Your task to perform on an android device: all mails in gmail Image 0: 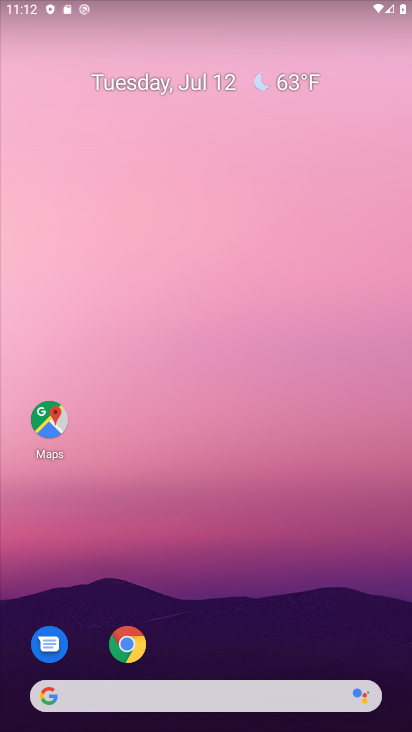
Step 0: drag from (221, 695) to (248, 123)
Your task to perform on an android device: all mails in gmail Image 1: 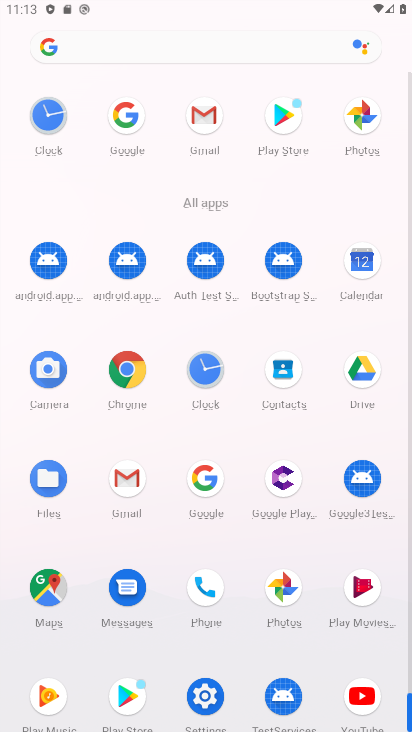
Step 1: click (203, 110)
Your task to perform on an android device: all mails in gmail Image 2: 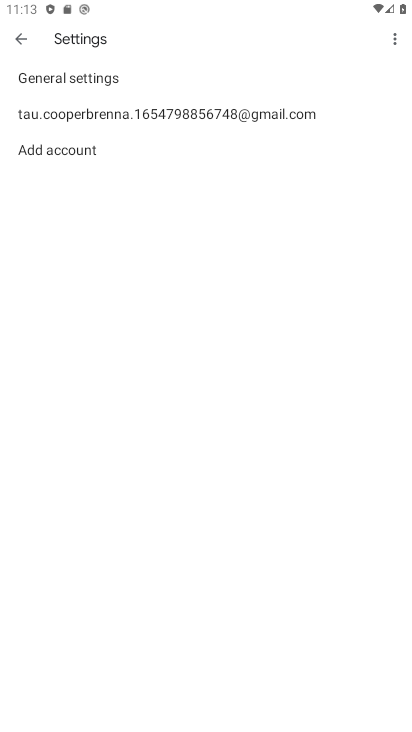
Step 2: press back button
Your task to perform on an android device: all mails in gmail Image 3: 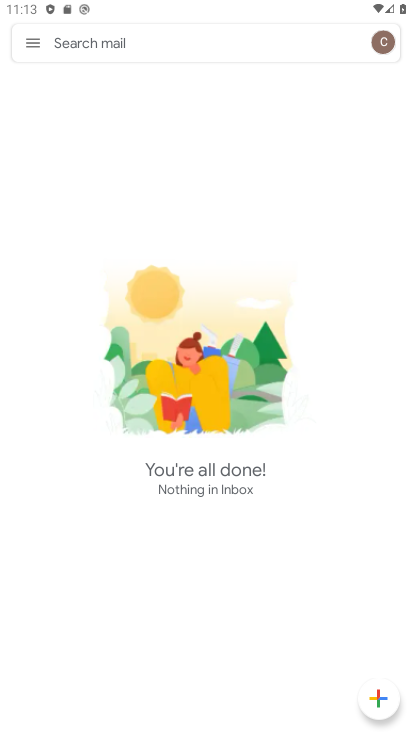
Step 3: click (33, 43)
Your task to perform on an android device: all mails in gmail Image 4: 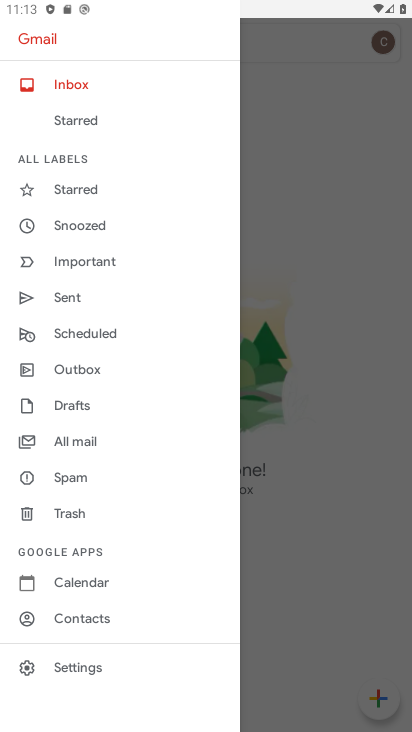
Step 4: click (77, 430)
Your task to perform on an android device: all mails in gmail Image 5: 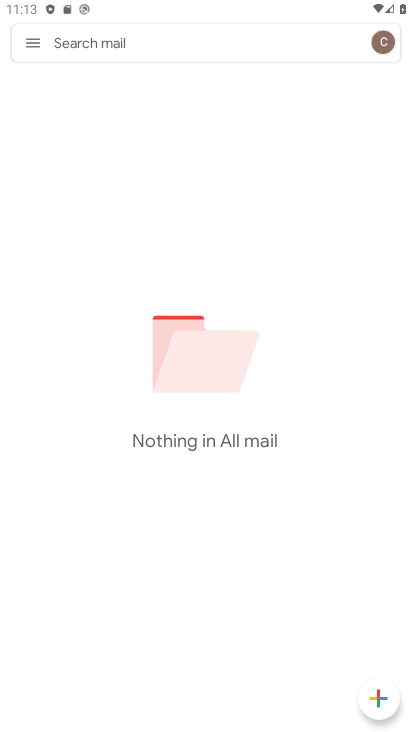
Step 5: click (34, 43)
Your task to perform on an android device: all mails in gmail Image 6: 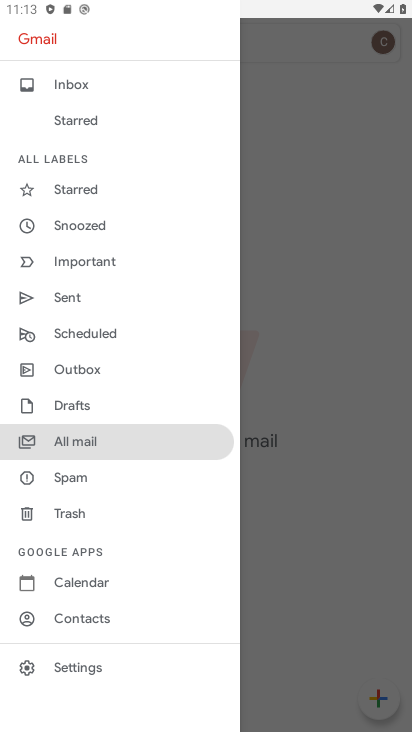
Step 6: task complete